Your task to perform on an android device: stop showing notifications on the lock screen Image 0: 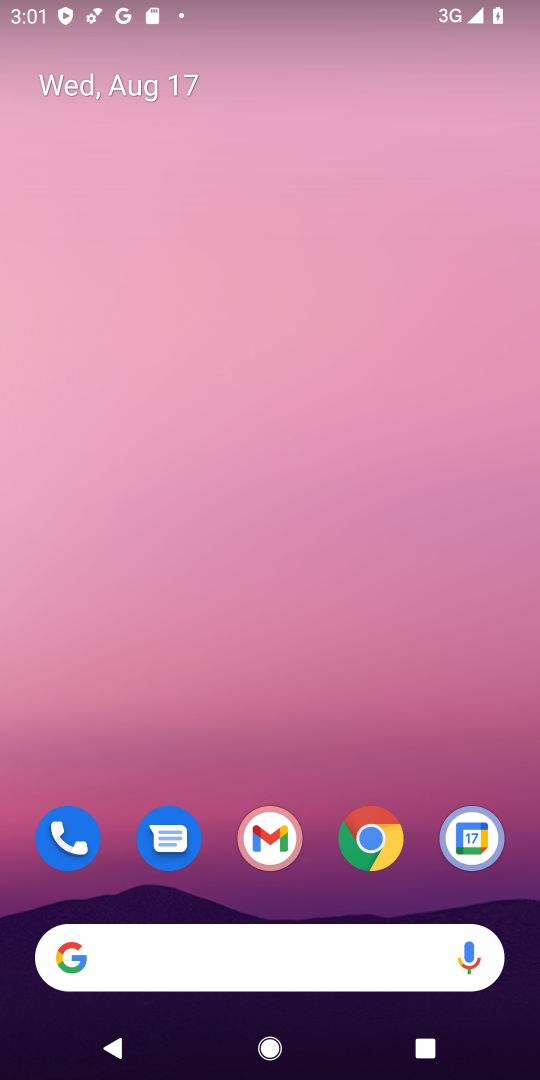
Step 0: drag from (282, 885) to (383, 12)
Your task to perform on an android device: stop showing notifications on the lock screen Image 1: 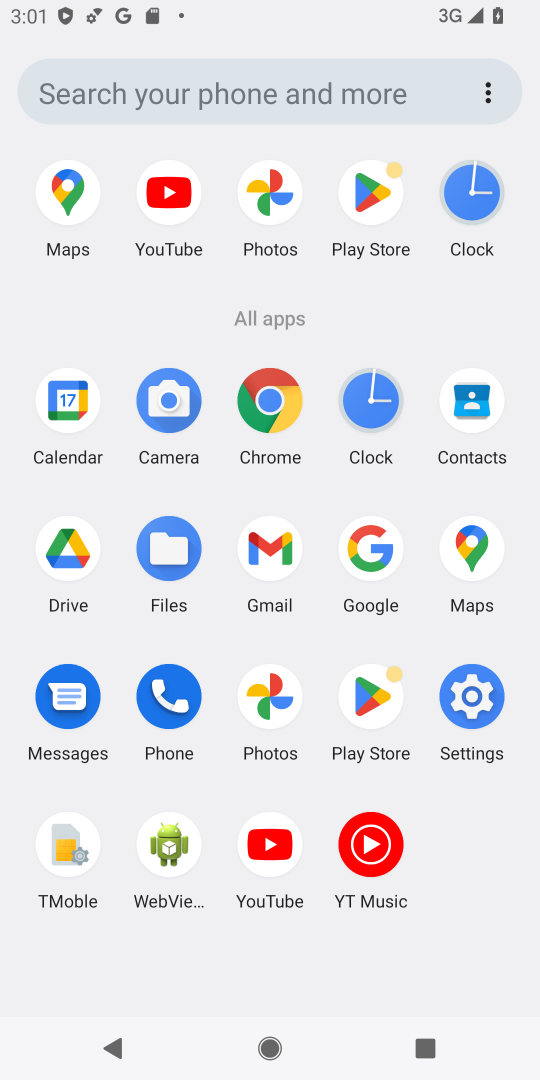
Step 1: click (465, 695)
Your task to perform on an android device: stop showing notifications on the lock screen Image 2: 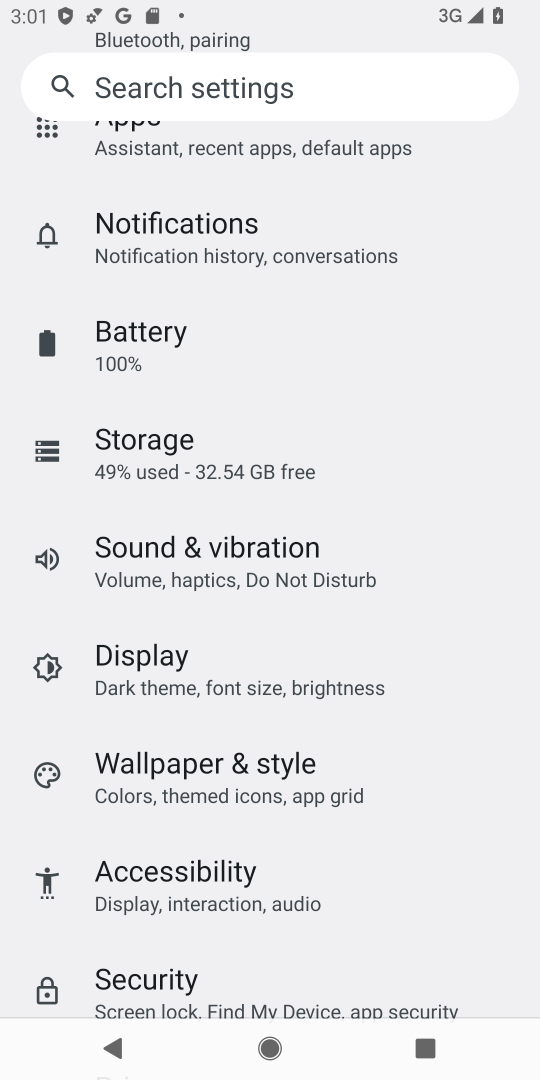
Step 2: click (368, 262)
Your task to perform on an android device: stop showing notifications on the lock screen Image 3: 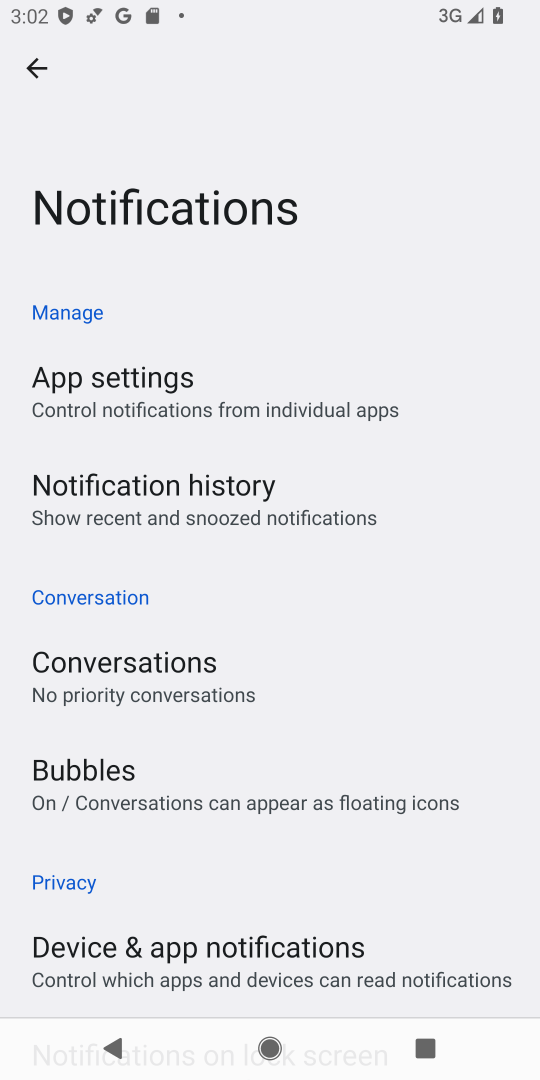
Step 3: drag from (235, 934) to (366, 59)
Your task to perform on an android device: stop showing notifications on the lock screen Image 4: 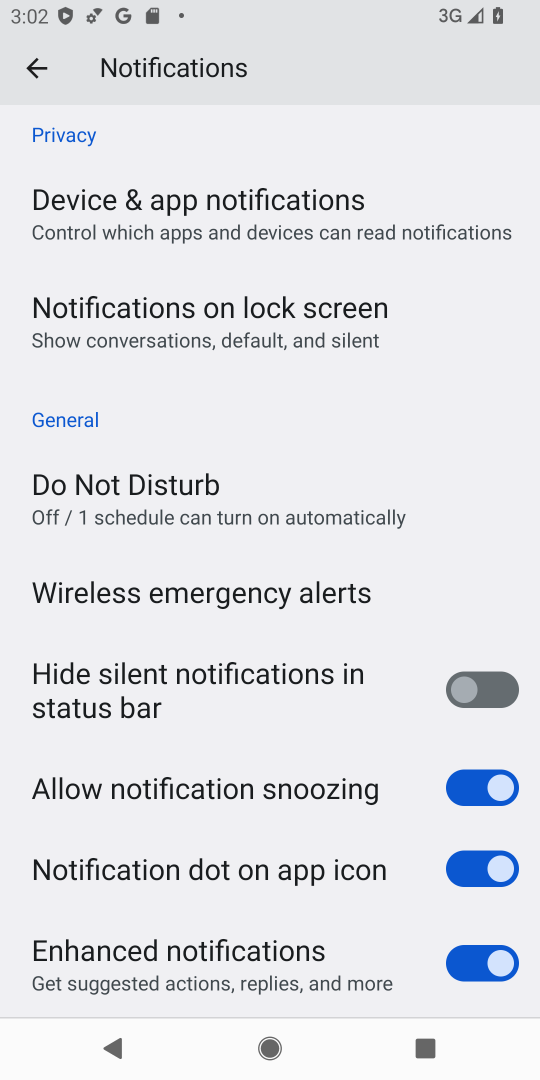
Step 4: click (266, 318)
Your task to perform on an android device: stop showing notifications on the lock screen Image 5: 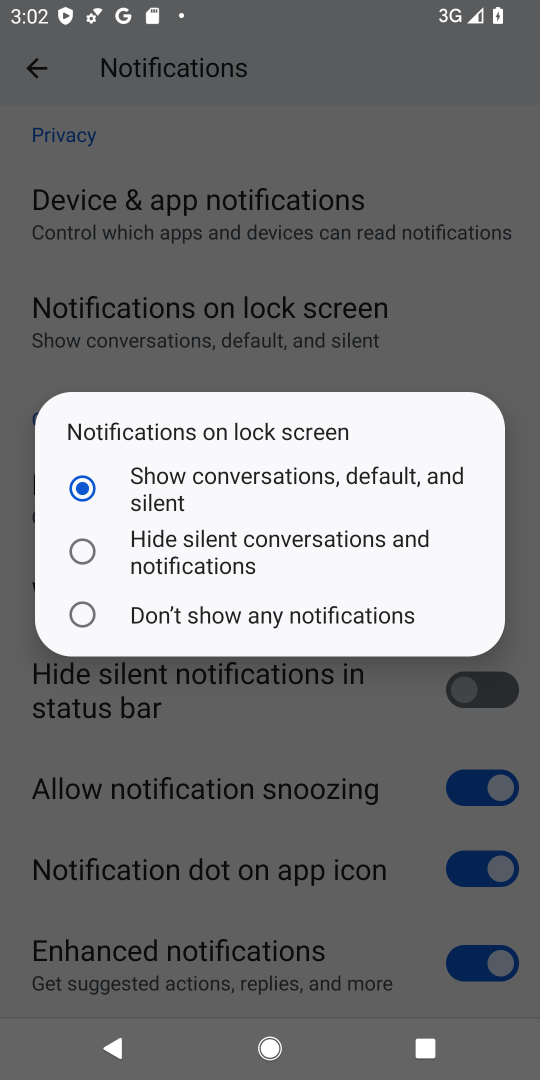
Step 5: click (93, 629)
Your task to perform on an android device: stop showing notifications on the lock screen Image 6: 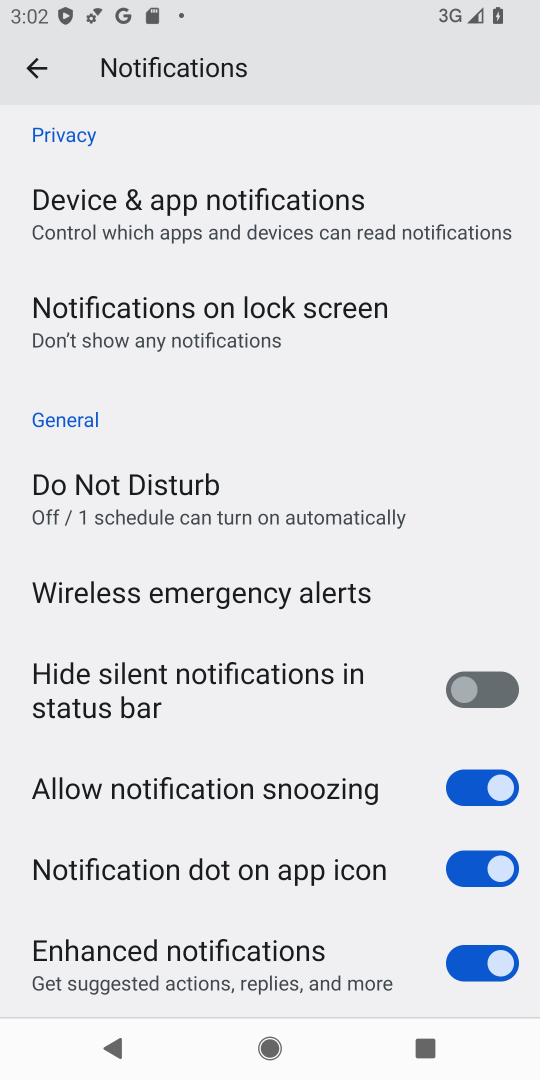
Step 6: task complete